Your task to perform on an android device: Open the calendar and show me this week's events? Image 0: 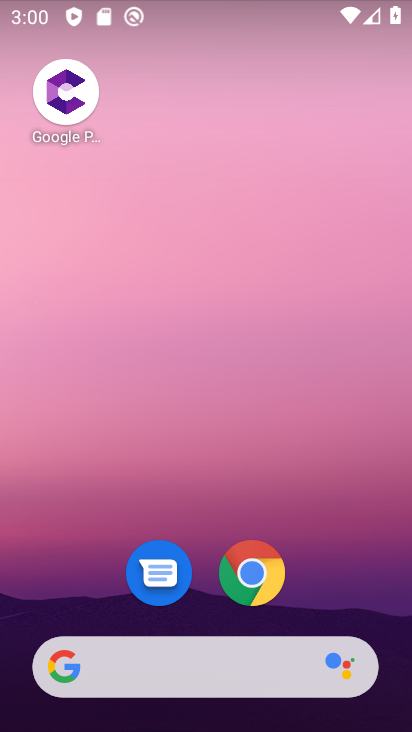
Step 0: drag from (358, 592) to (322, 123)
Your task to perform on an android device: Open the calendar and show me this week's events? Image 1: 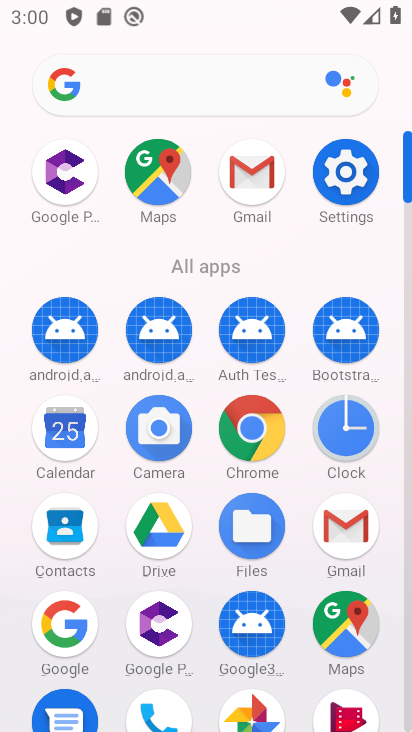
Step 1: click (67, 436)
Your task to perform on an android device: Open the calendar and show me this week's events? Image 2: 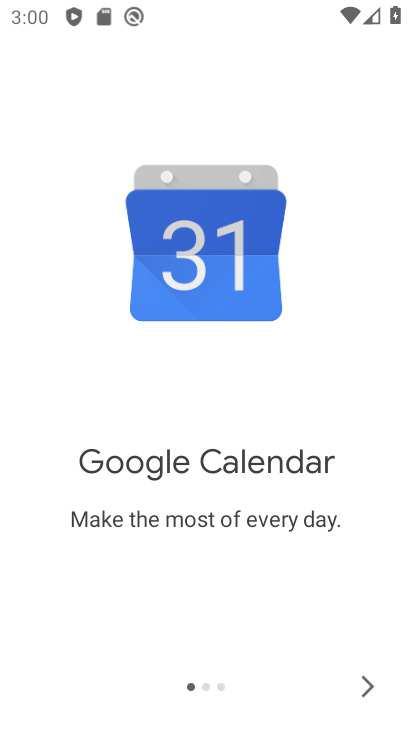
Step 2: click (372, 677)
Your task to perform on an android device: Open the calendar and show me this week's events? Image 3: 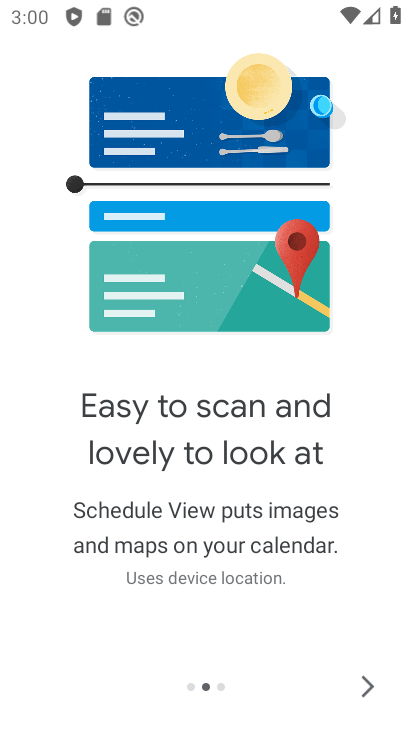
Step 3: click (370, 673)
Your task to perform on an android device: Open the calendar and show me this week's events? Image 4: 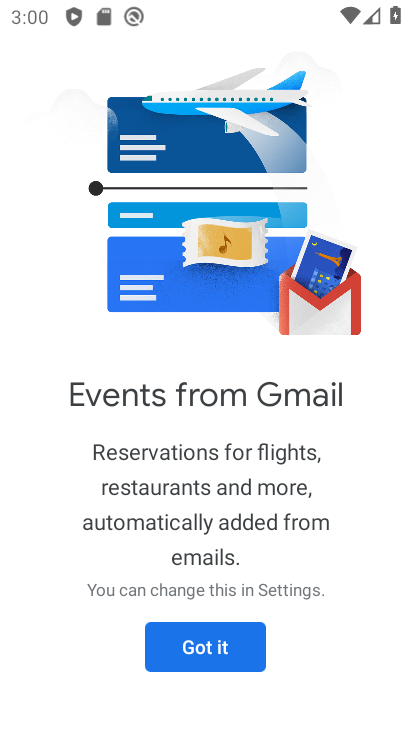
Step 4: click (219, 652)
Your task to perform on an android device: Open the calendar and show me this week's events? Image 5: 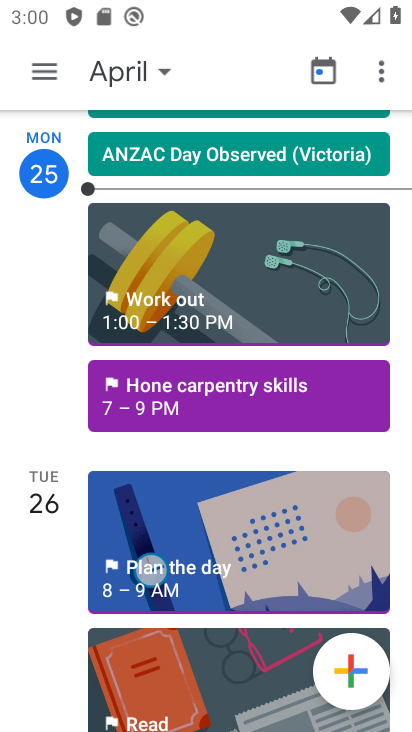
Step 5: click (47, 70)
Your task to perform on an android device: Open the calendar and show me this week's events? Image 6: 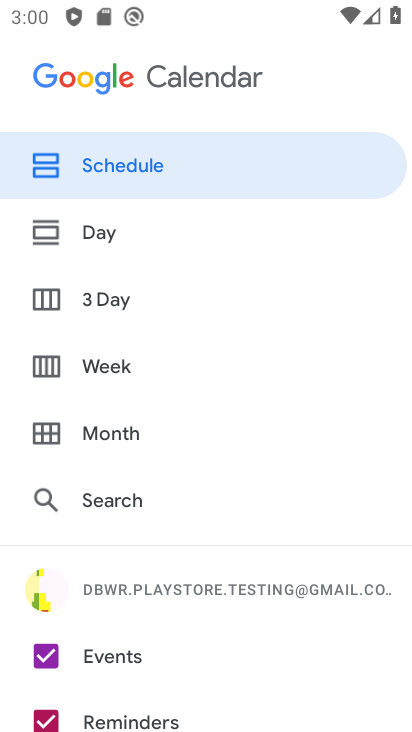
Step 6: click (140, 367)
Your task to perform on an android device: Open the calendar and show me this week's events? Image 7: 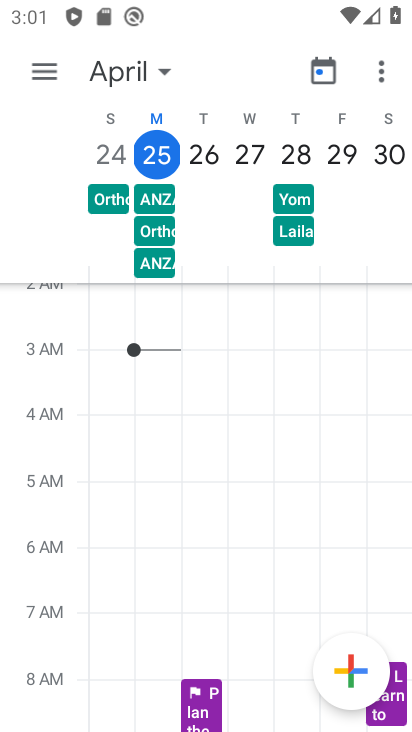
Step 7: task complete